Your task to perform on an android device: empty trash in the gmail app Image 0: 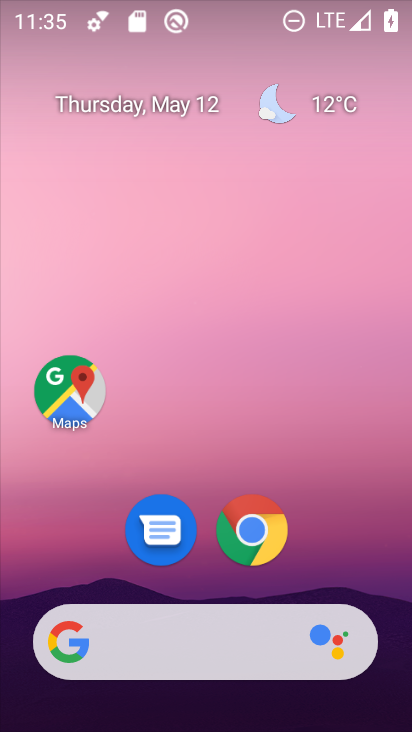
Step 0: press home button
Your task to perform on an android device: empty trash in the gmail app Image 1: 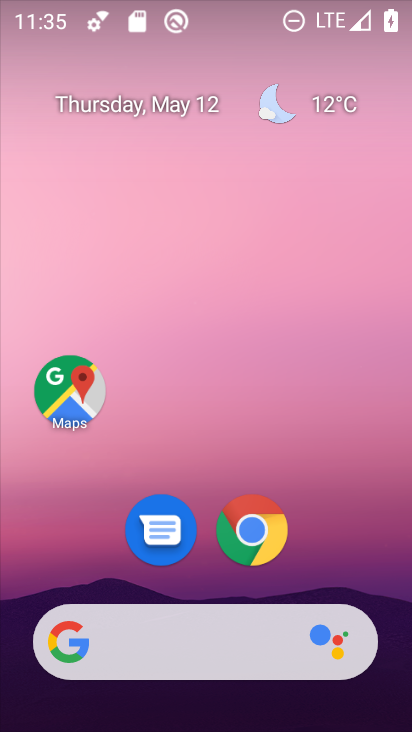
Step 1: drag from (174, 652) to (253, 172)
Your task to perform on an android device: empty trash in the gmail app Image 2: 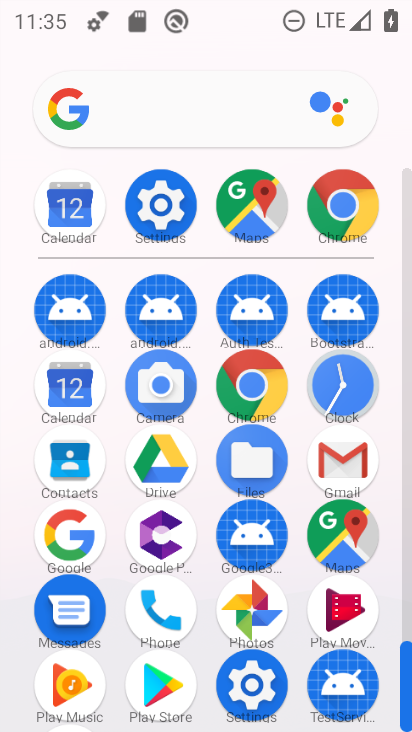
Step 2: click (334, 475)
Your task to perform on an android device: empty trash in the gmail app Image 3: 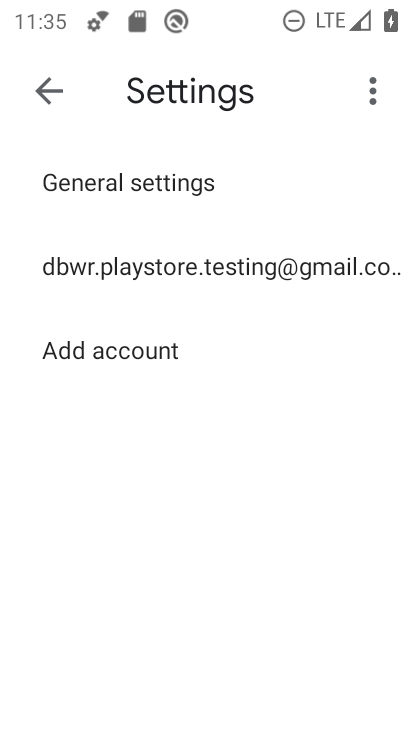
Step 3: click (56, 97)
Your task to perform on an android device: empty trash in the gmail app Image 4: 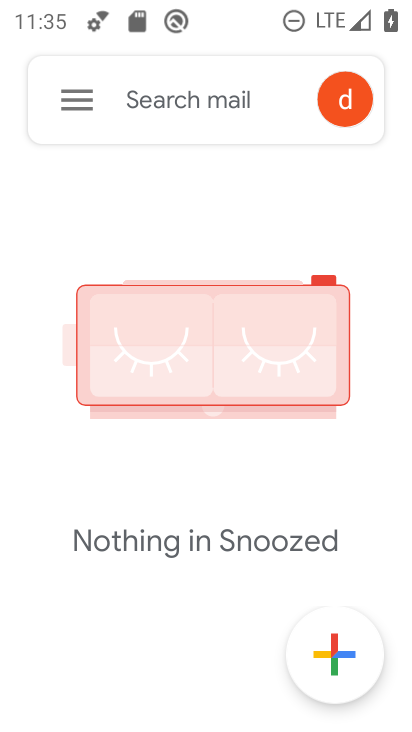
Step 4: click (66, 105)
Your task to perform on an android device: empty trash in the gmail app Image 5: 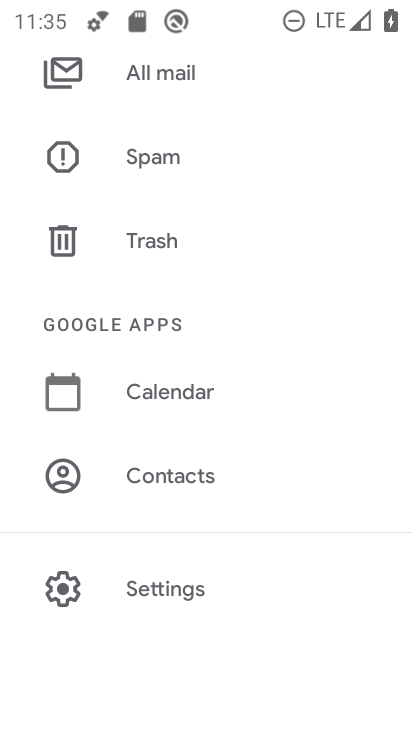
Step 5: click (139, 233)
Your task to perform on an android device: empty trash in the gmail app Image 6: 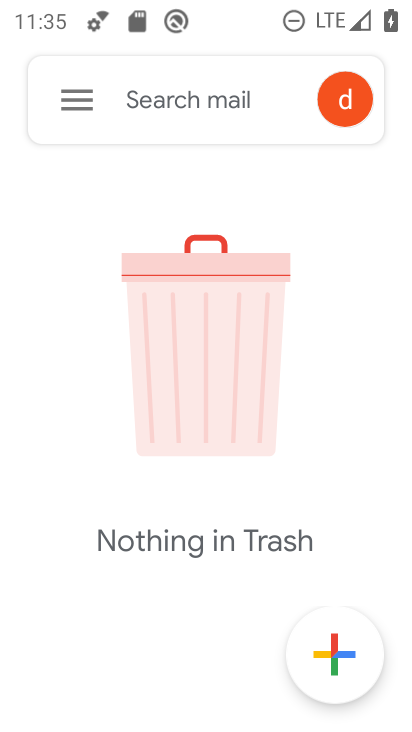
Step 6: task complete